Your task to perform on an android device: Go to Android settings Image 0: 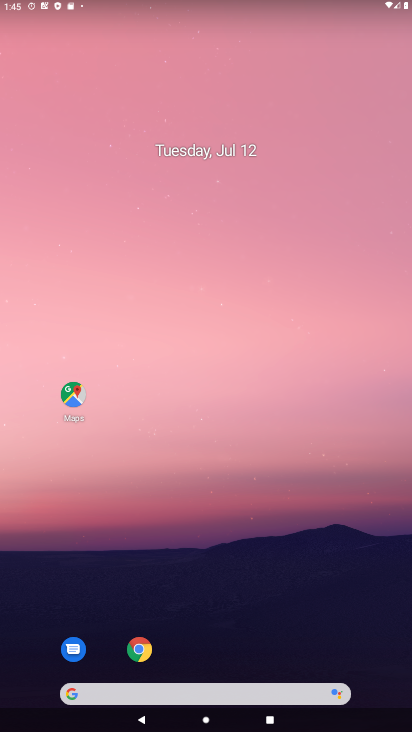
Step 0: drag from (352, 672) to (250, 46)
Your task to perform on an android device: Go to Android settings Image 1: 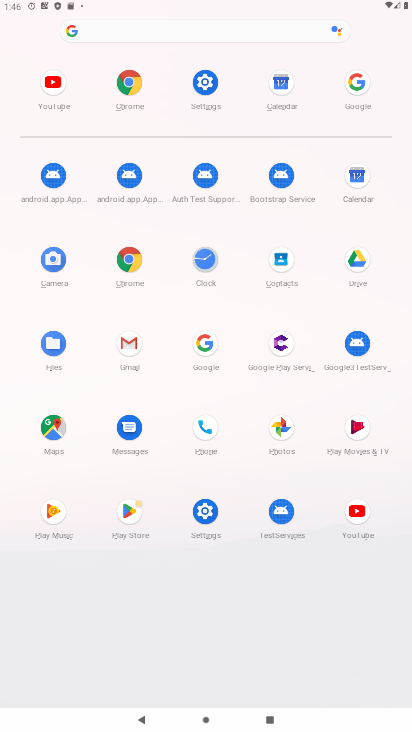
Step 1: click (211, 515)
Your task to perform on an android device: Go to Android settings Image 2: 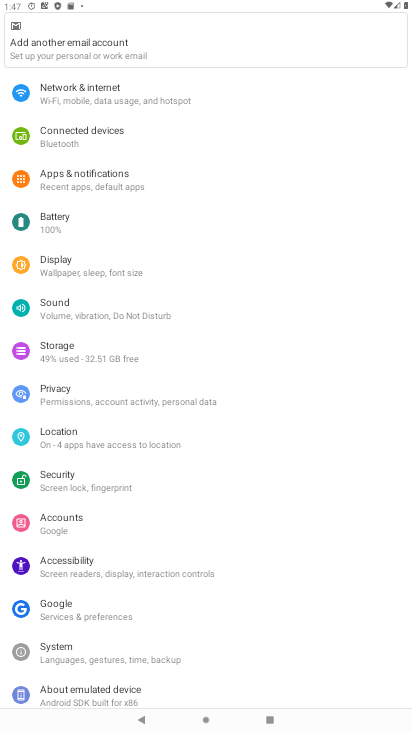
Step 2: task complete